Your task to perform on an android device: toggle javascript in the chrome app Image 0: 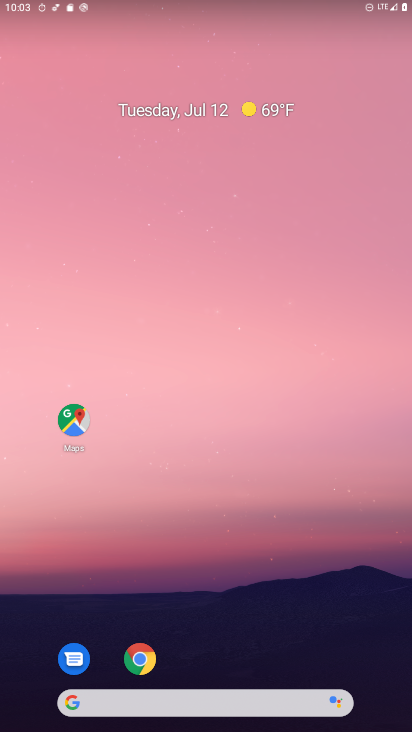
Step 0: drag from (232, 725) to (234, 641)
Your task to perform on an android device: toggle javascript in the chrome app Image 1: 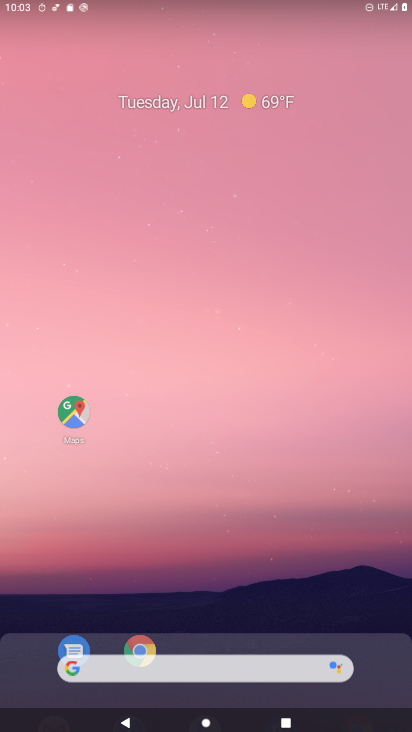
Step 1: drag from (252, 320) to (252, 243)
Your task to perform on an android device: toggle javascript in the chrome app Image 2: 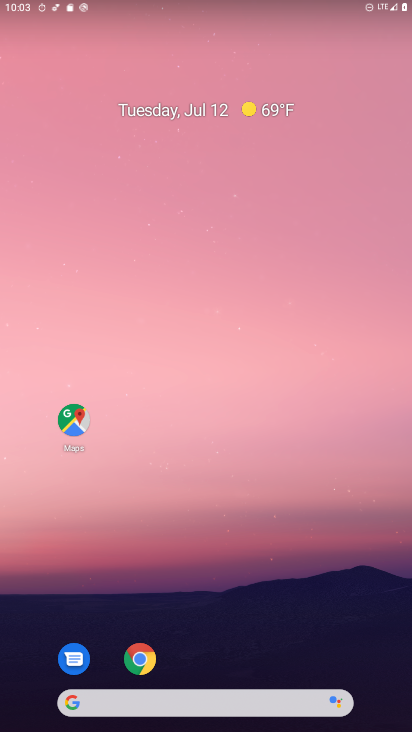
Step 2: click (140, 663)
Your task to perform on an android device: toggle javascript in the chrome app Image 3: 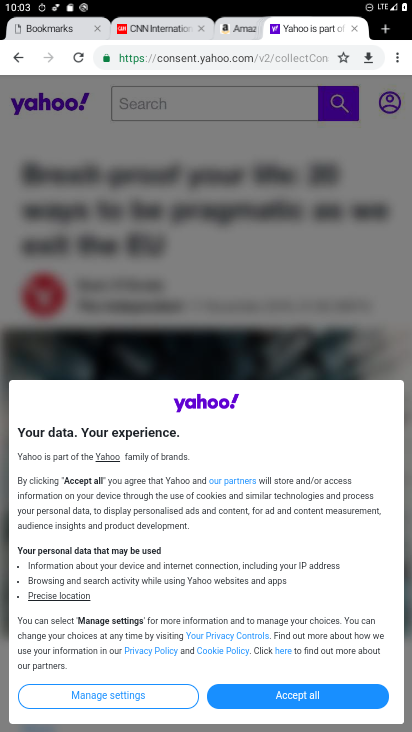
Step 3: click (396, 60)
Your task to perform on an android device: toggle javascript in the chrome app Image 4: 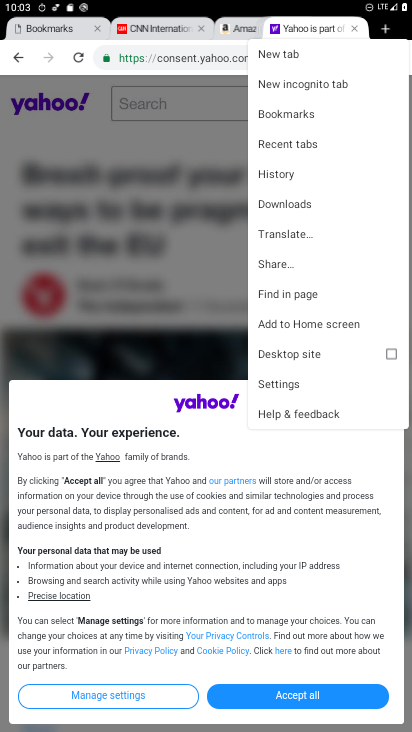
Step 4: click (285, 381)
Your task to perform on an android device: toggle javascript in the chrome app Image 5: 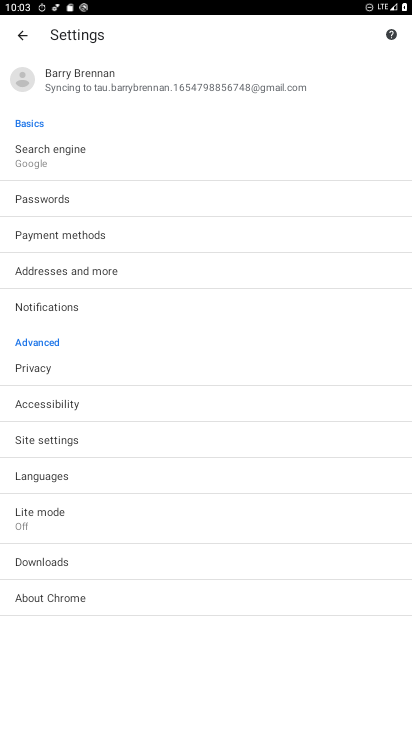
Step 5: click (50, 440)
Your task to perform on an android device: toggle javascript in the chrome app Image 6: 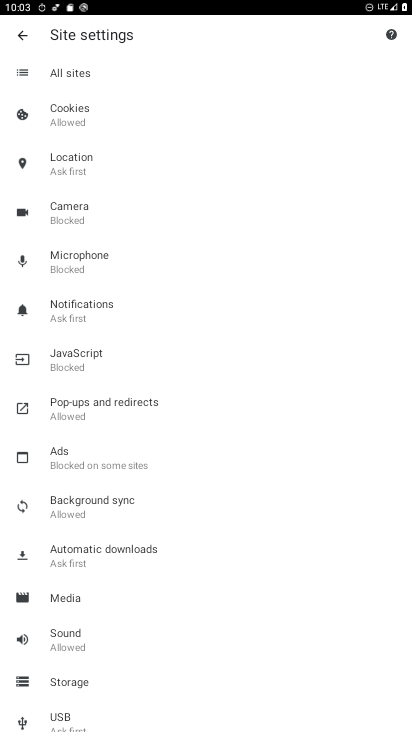
Step 6: click (64, 345)
Your task to perform on an android device: toggle javascript in the chrome app Image 7: 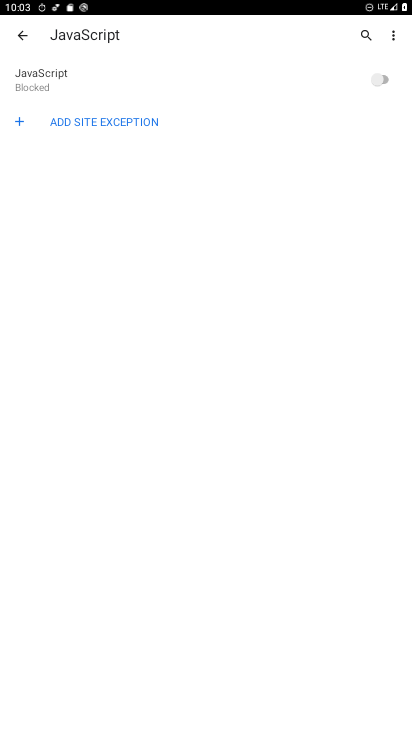
Step 7: click (385, 72)
Your task to perform on an android device: toggle javascript in the chrome app Image 8: 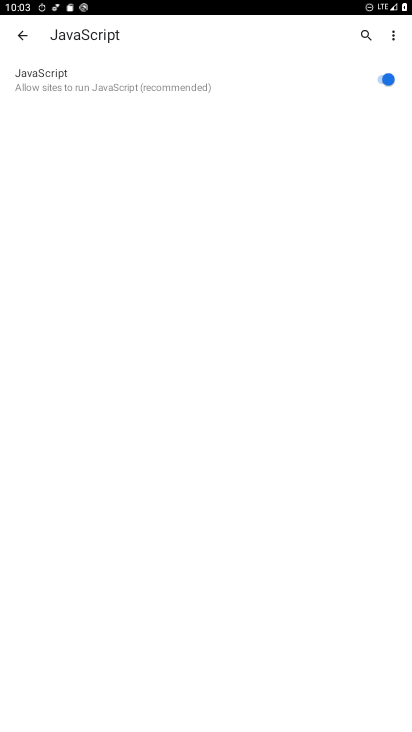
Step 8: task complete